Your task to perform on an android device: Go to eBay Image 0: 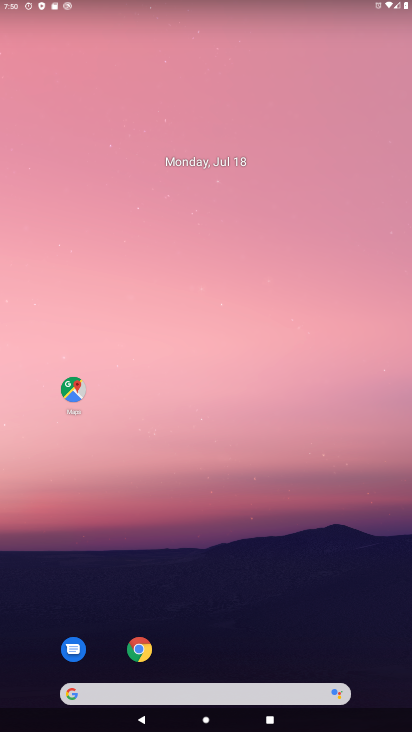
Step 0: drag from (299, 618) to (273, 75)
Your task to perform on an android device: Go to eBay Image 1: 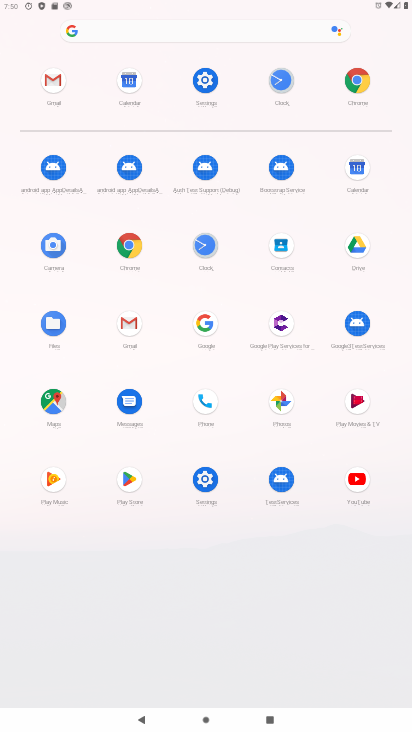
Step 1: click (130, 251)
Your task to perform on an android device: Go to eBay Image 2: 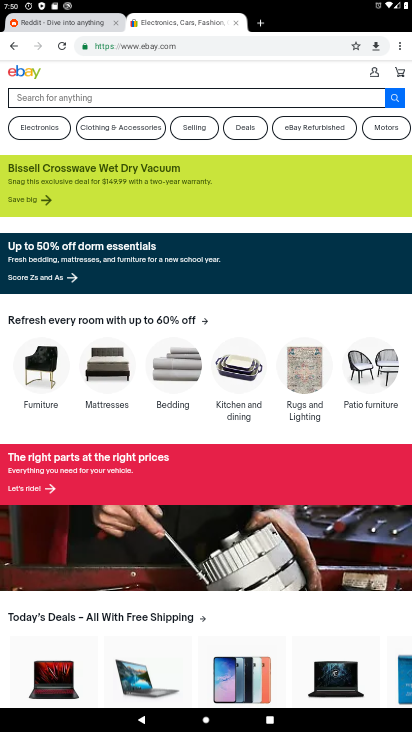
Step 2: task complete